Your task to perform on an android device: turn off priority inbox in the gmail app Image 0: 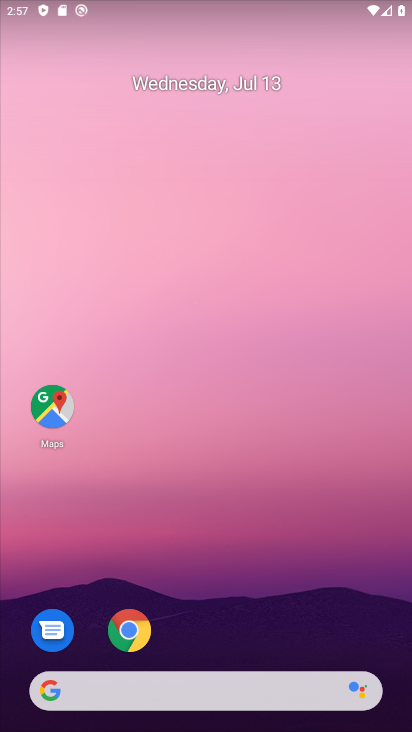
Step 0: drag from (168, 668) to (160, 206)
Your task to perform on an android device: turn off priority inbox in the gmail app Image 1: 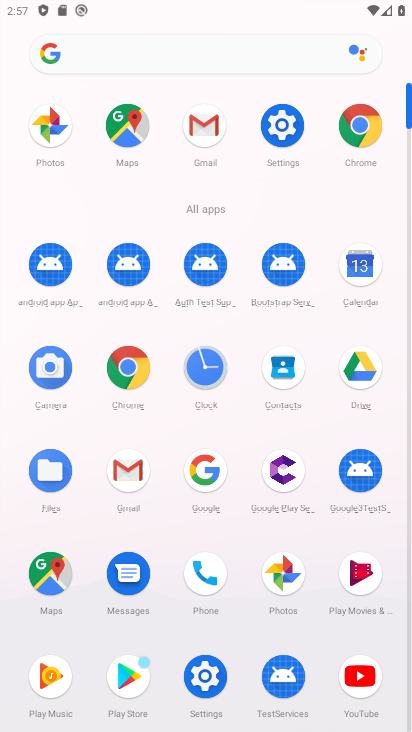
Step 1: click (130, 479)
Your task to perform on an android device: turn off priority inbox in the gmail app Image 2: 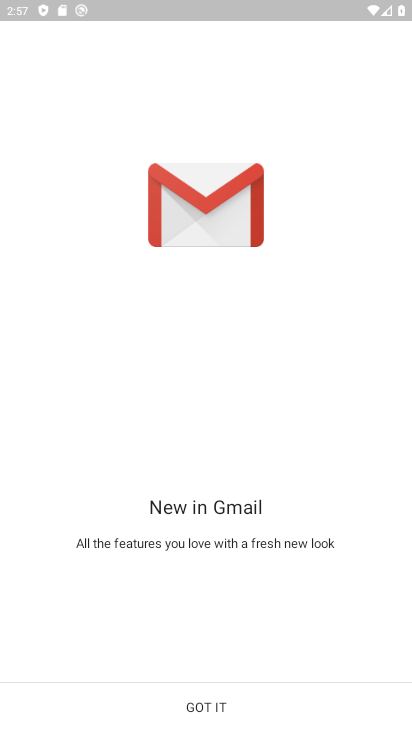
Step 2: click (194, 713)
Your task to perform on an android device: turn off priority inbox in the gmail app Image 3: 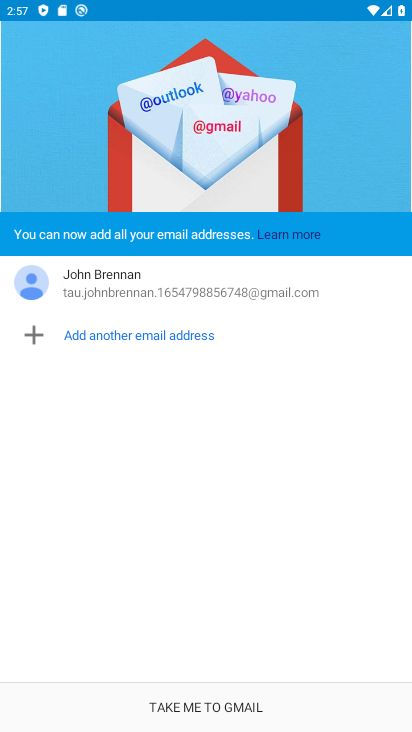
Step 3: click (191, 709)
Your task to perform on an android device: turn off priority inbox in the gmail app Image 4: 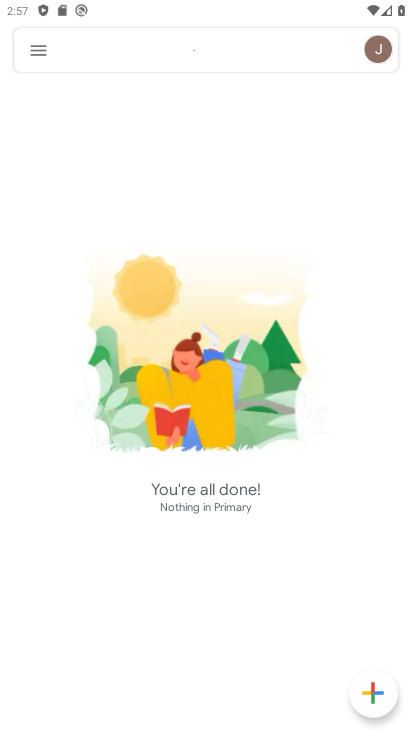
Step 4: click (40, 52)
Your task to perform on an android device: turn off priority inbox in the gmail app Image 5: 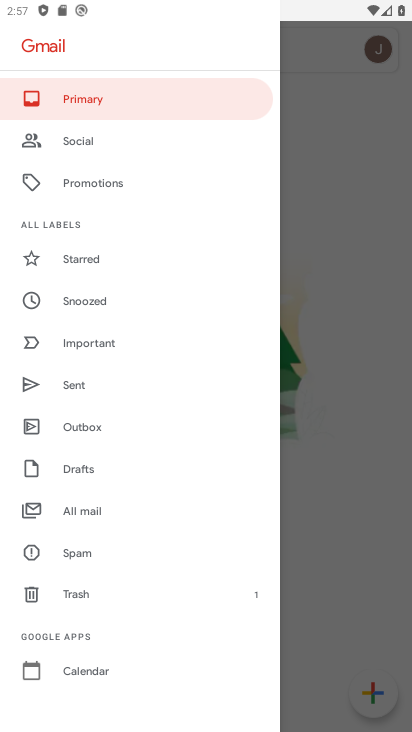
Step 5: drag from (88, 681) to (83, 286)
Your task to perform on an android device: turn off priority inbox in the gmail app Image 6: 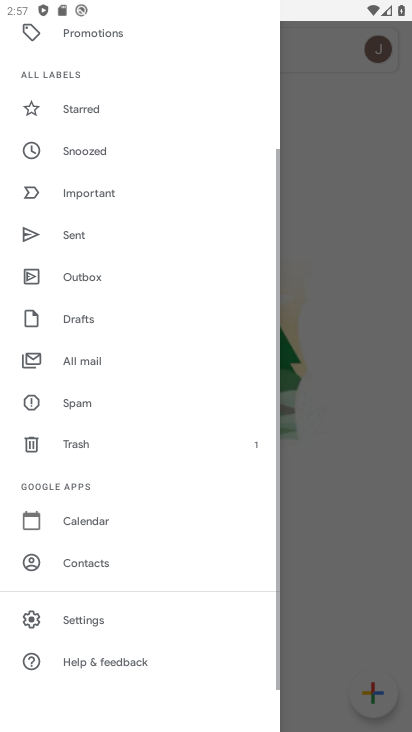
Step 6: click (70, 621)
Your task to perform on an android device: turn off priority inbox in the gmail app Image 7: 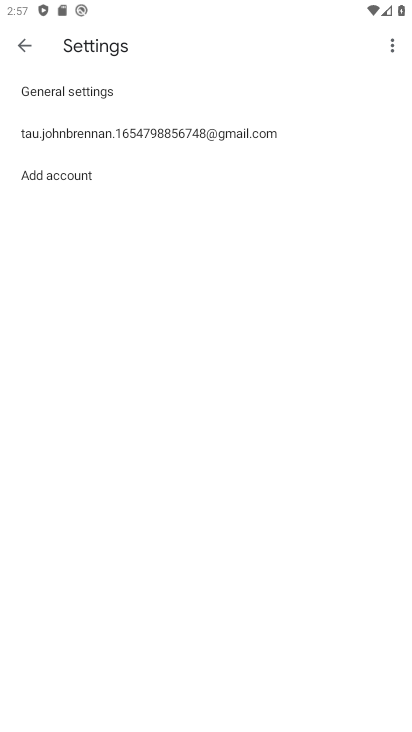
Step 7: click (68, 132)
Your task to perform on an android device: turn off priority inbox in the gmail app Image 8: 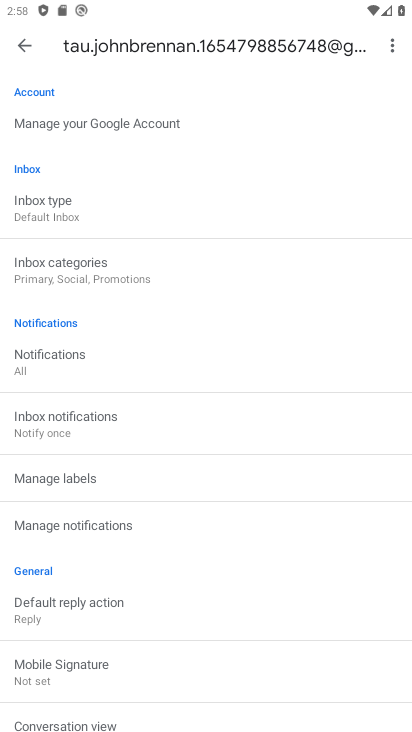
Step 8: task complete